Your task to perform on an android device: read, delete, or share a saved page in the chrome app Image 0: 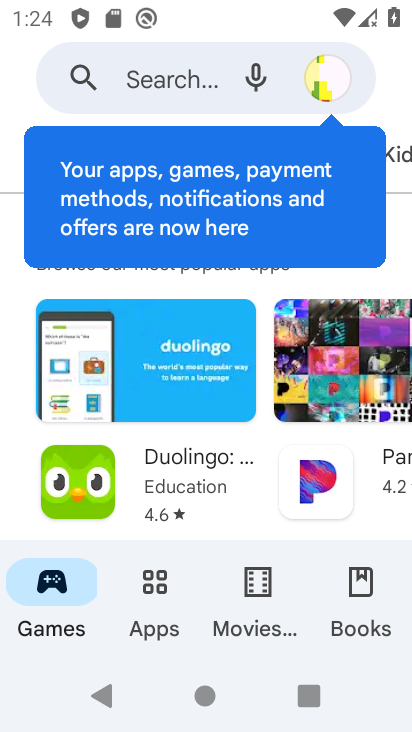
Step 0: press home button
Your task to perform on an android device: read, delete, or share a saved page in the chrome app Image 1: 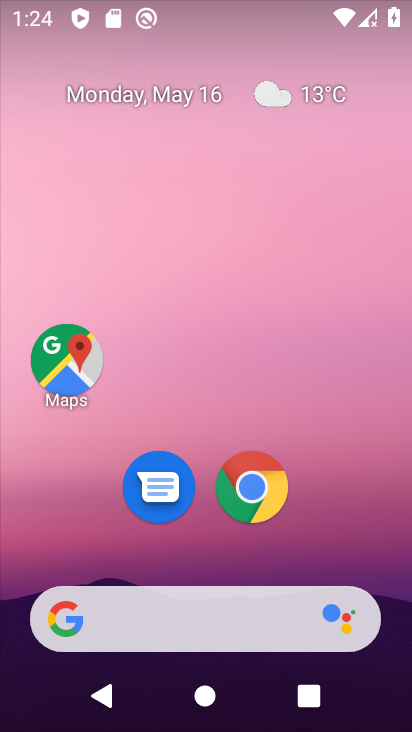
Step 1: click (258, 481)
Your task to perform on an android device: read, delete, or share a saved page in the chrome app Image 2: 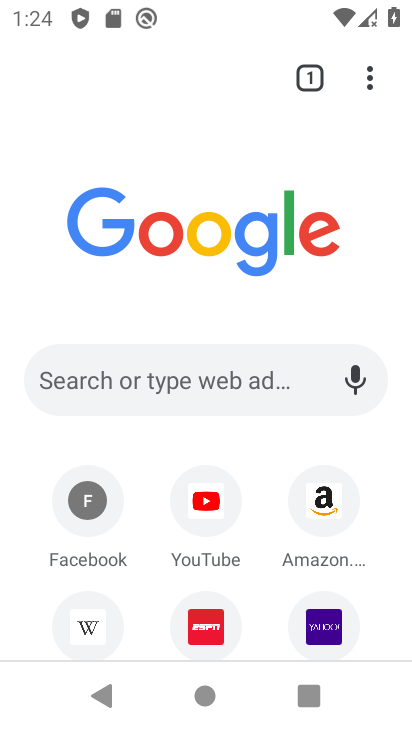
Step 2: click (368, 76)
Your task to perform on an android device: read, delete, or share a saved page in the chrome app Image 3: 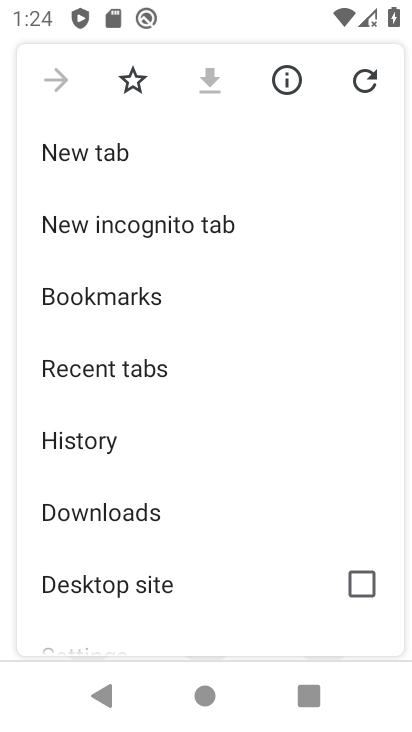
Step 3: click (65, 515)
Your task to perform on an android device: read, delete, or share a saved page in the chrome app Image 4: 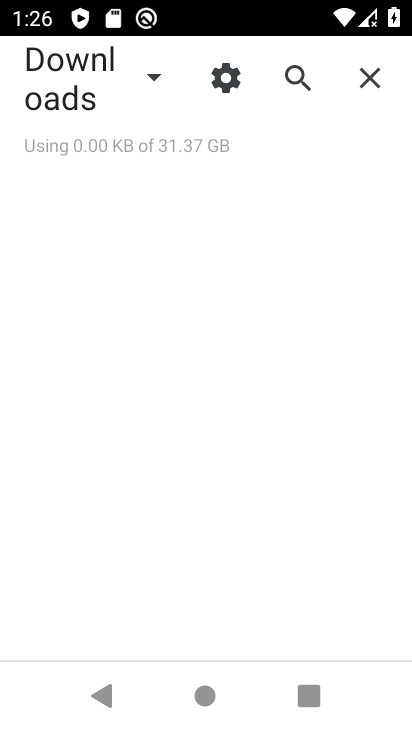
Step 4: task complete